Your task to perform on an android device: open the mobile data screen to see how much data has been used Image 0: 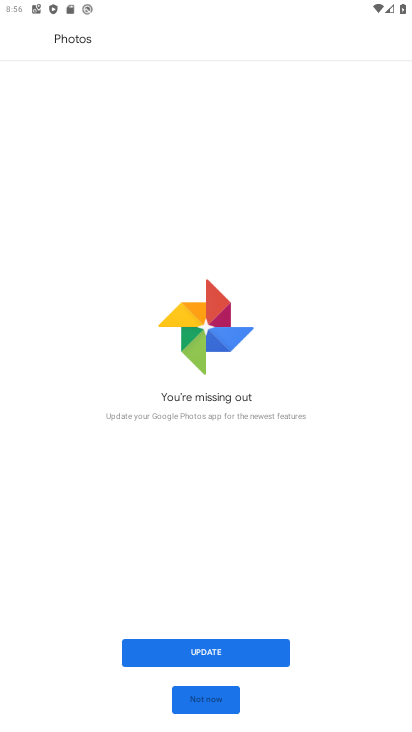
Step 0: press home button
Your task to perform on an android device: open the mobile data screen to see how much data has been used Image 1: 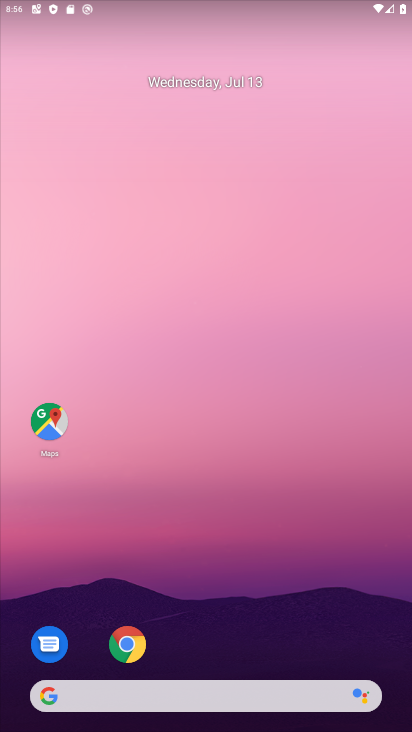
Step 1: drag from (206, 730) to (244, 90)
Your task to perform on an android device: open the mobile data screen to see how much data has been used Image 2: 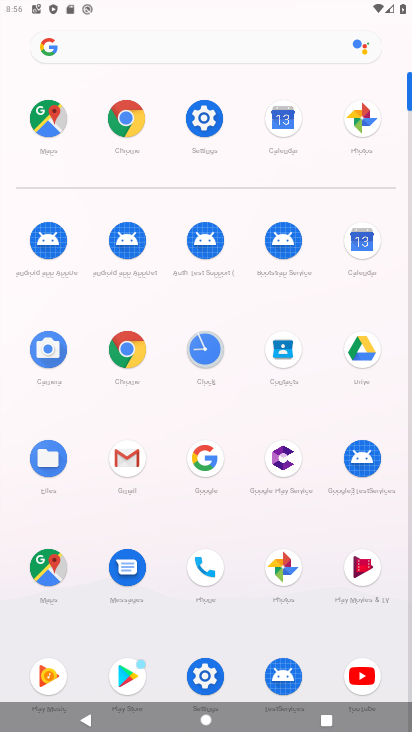
Step 2: click (207, 112)
Your task to perform on an android device: open the mobile data screen to see how much data has been used Image 3: 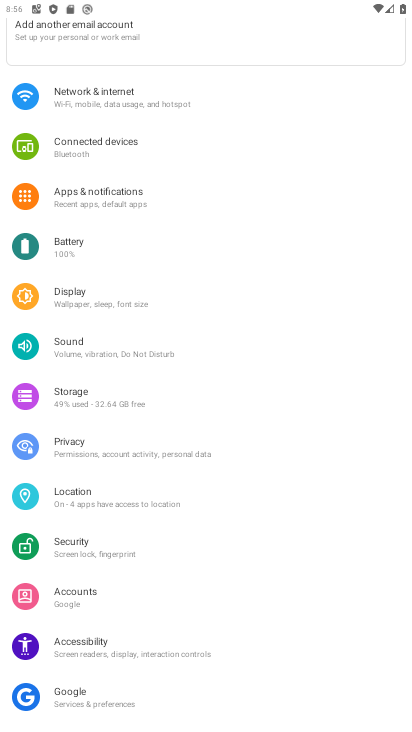
Step 3: click (83, 82)
Your task to perform on an android device: open the mobile data screen to see how much data has been used Image 4: 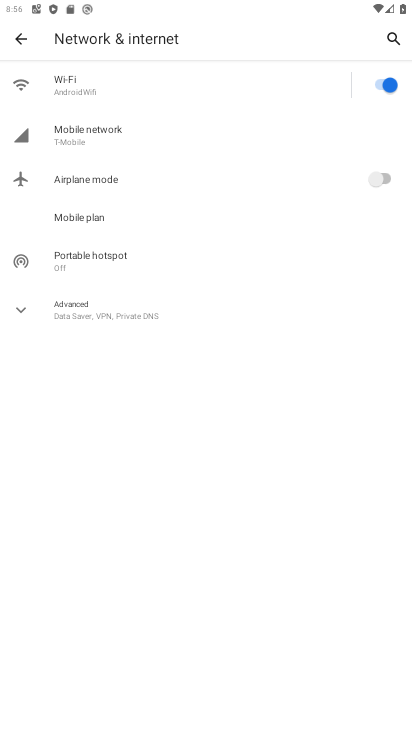
Step 4: click (78, 130)
Your task to perform on an android device: open the mobile data screen to see how much data has been used Image 5: 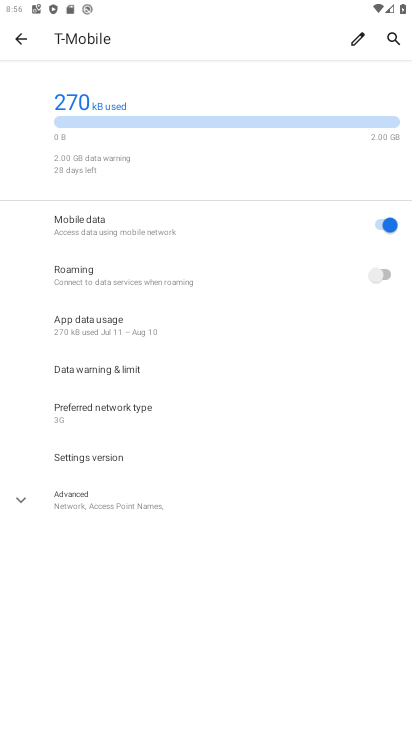
Step 5: click (97, 322)
Your task to perform on an android device: open the mobile data screen to see how much data has been used Image 6: 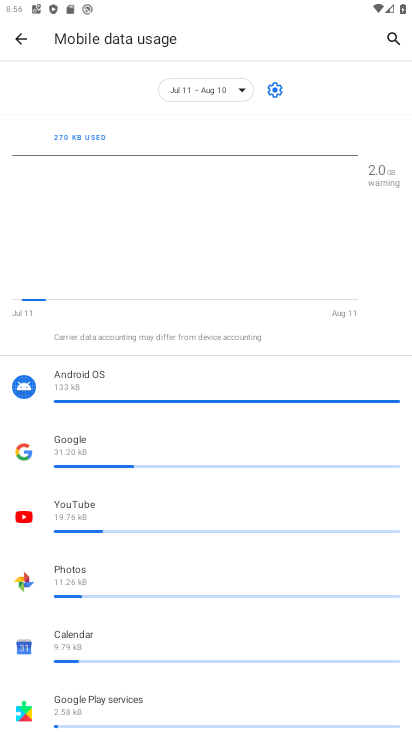
Step 6: task complete